Your task to perform on an android device: turn off notifications in google photos Image 0: 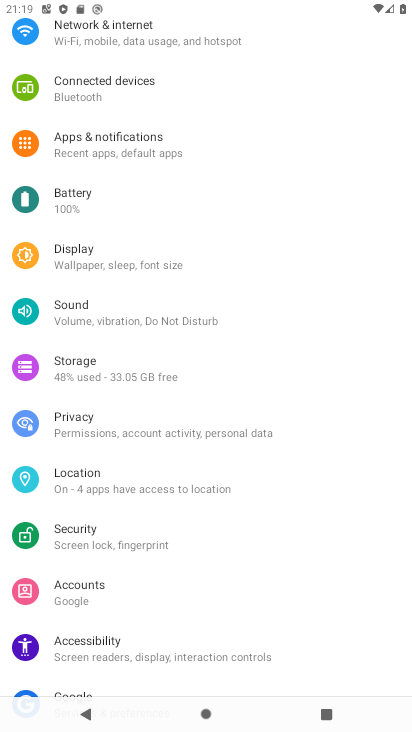
Step 0: press home button
Your task to perform on an android device: turn off notifications in google photos Image 1: 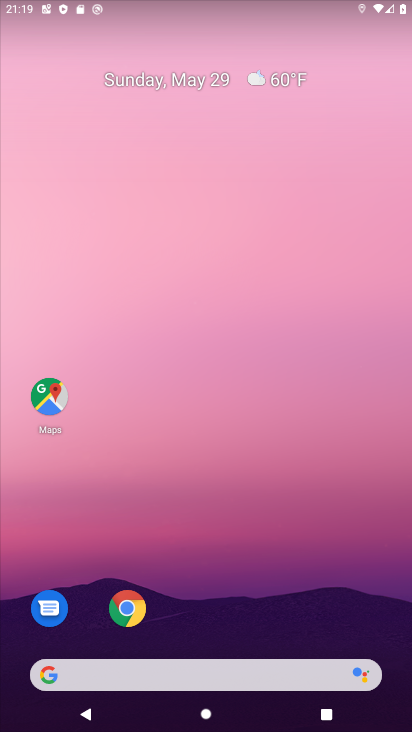
Step 1: drag from (389, 627) to (369, 350)
Your task to perform on an android device: turn off notifications in google photos Image 2: 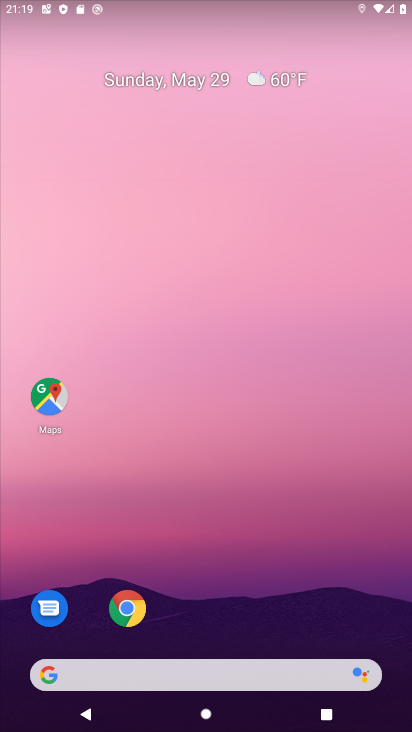
Step 2: drag from (369, 619) to (364, 322)
Your task to perform on an android device: turn off notifications in google photos Image 3: 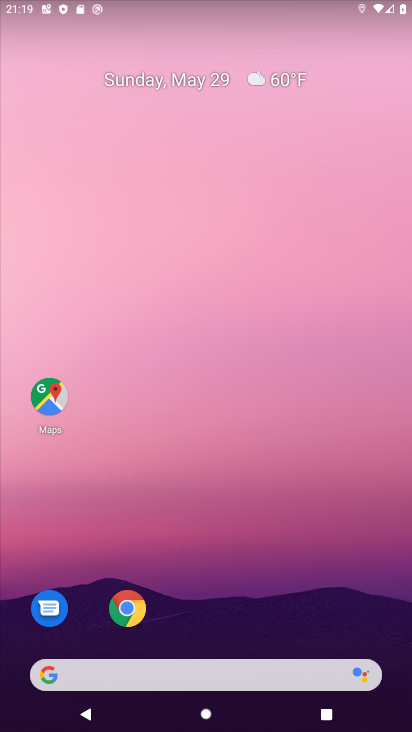
Step 3: drag from (360, 607) to (370, 264)
Your task to perform on an android device: turn off notifications in google photos Image 4: 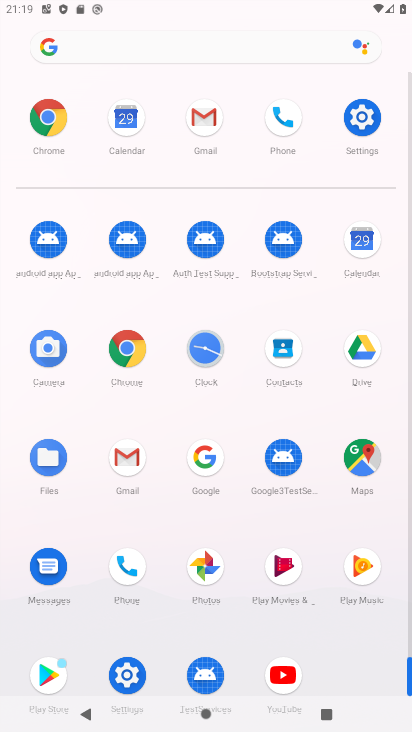
Step 4: click (212, 579)
Your task to perform on an android device: turn off notifications in google photos Image 5: 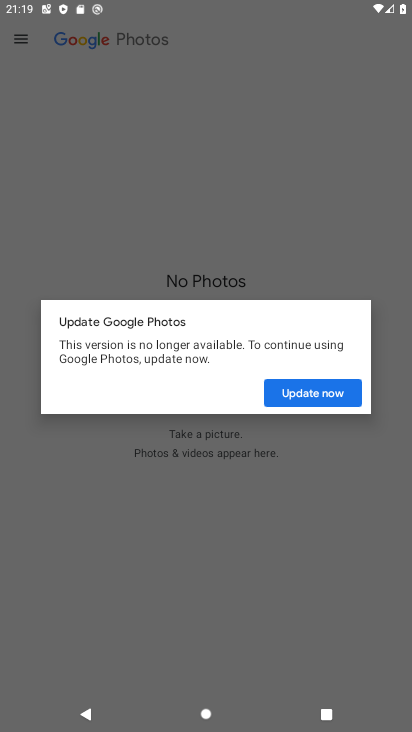
Step 5: click (318, 393)
Your task to perform on an android device: turn off notifications in google photos Image 6: 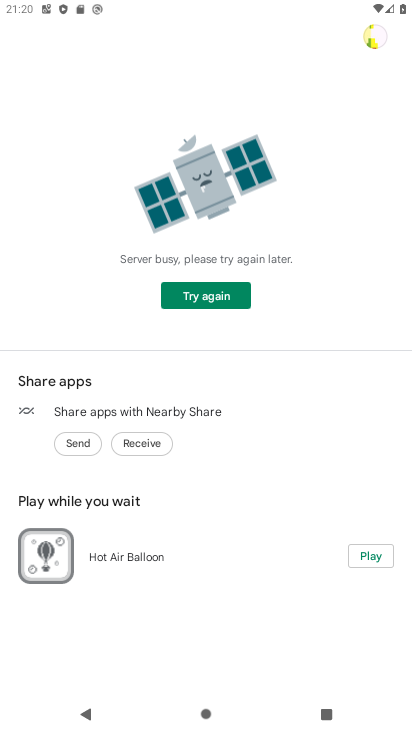
Step 6: task complete